Your task to perform on an android device: Go to privacy settings Image 0: 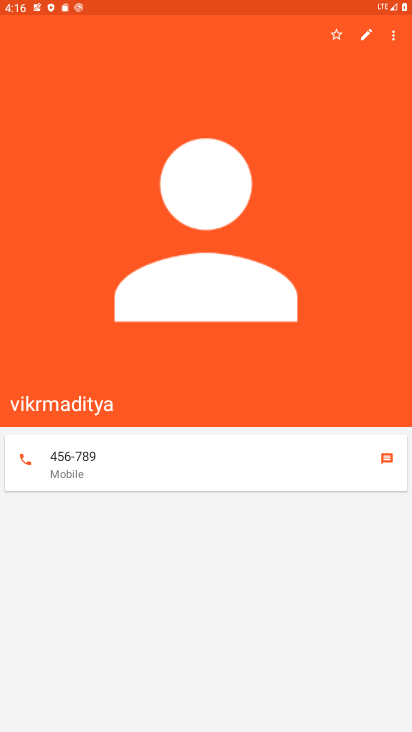
Step 0: press home button
Your task to perform on an android device: Go to privacy settings Image 1: 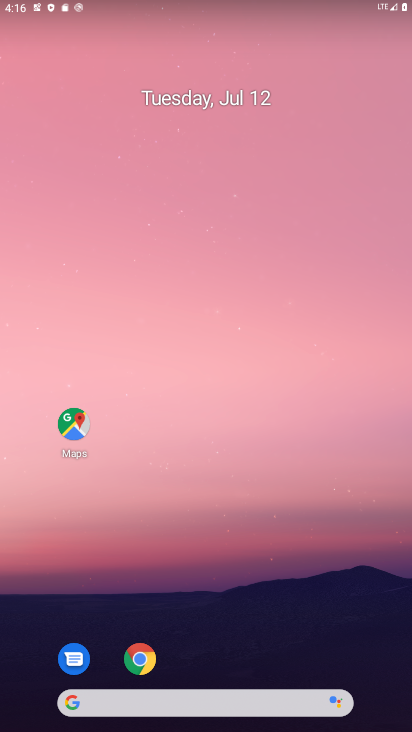
Step 1: drag from (210, 718) to (171, 125)
Your task to perform on an android device: Go to privacy settings Image 2: 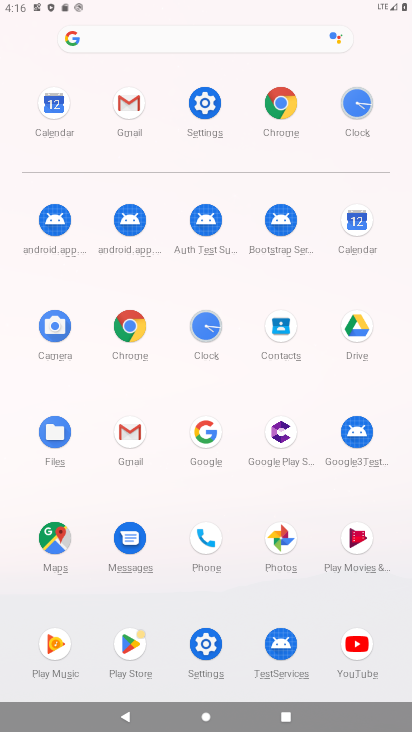
Step 2: click (200, 96)
Your task to perform on an android device: Go to privacy settings Image 3: 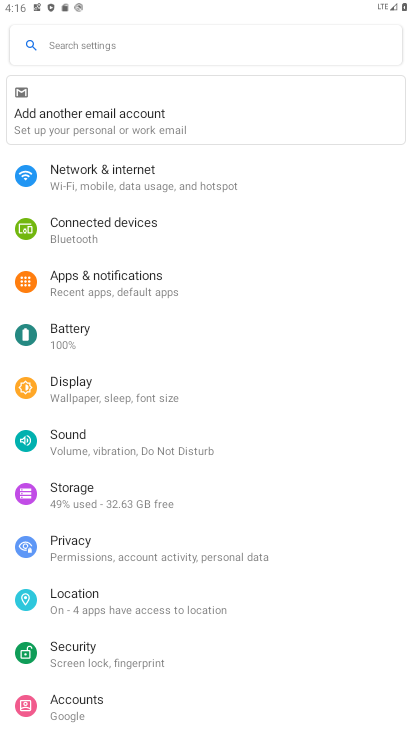
Step 3: click (87, 550)
Your task to perform on an android device: Go to privacy settings Image 4: 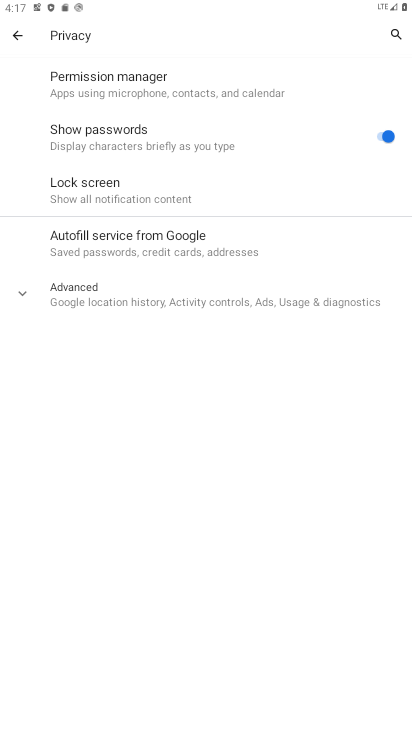
Step 4: task complete